Your task to perform on an android device: change keyboard looks Image 0: 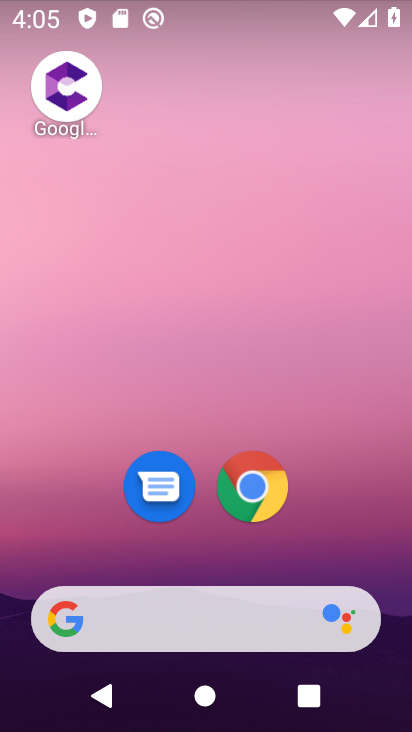
Step 0: drag from (362, 537) to (224, 13)
Your task to perform on an android device: change keyboard looks Image 1: 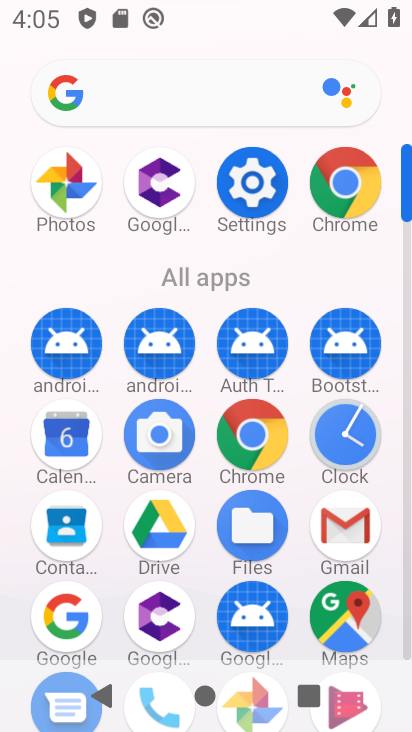
Step 1: drag from (16, 591) to (9, 215)
Your task to perform on an android device: change keyboard looks Image 2: 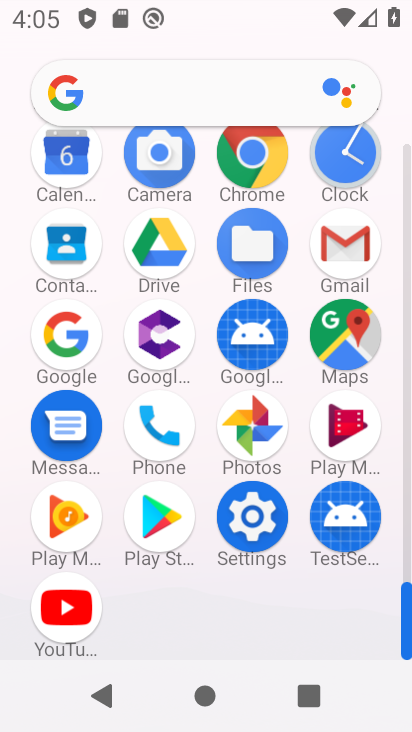
Step 2: click (250, 517)
Your task to perform on an android device: change keyboard looks Image 3: 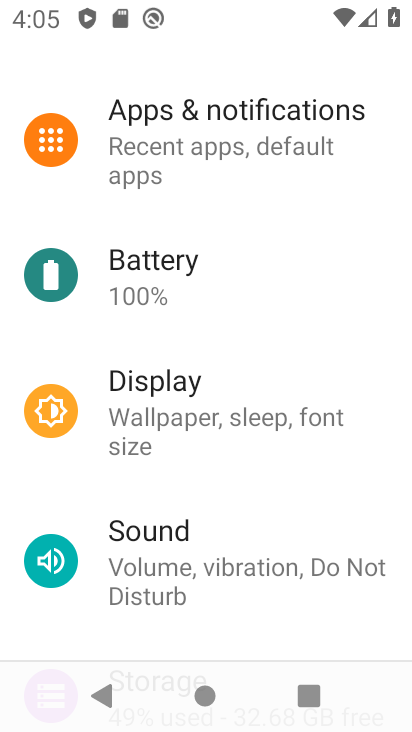
Step 3: drag from (246, 559) to (206, 145)
Your task to perform on an android device: change keyboard looks Image 4: 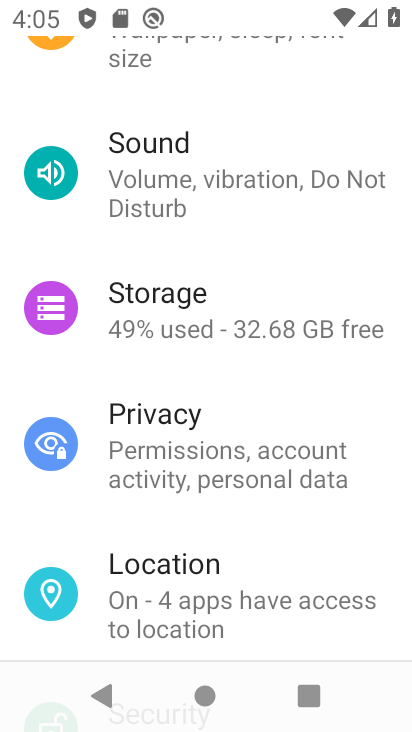
Step 4: drag from (246, 595) to (240, 105)
Your task to perform on an android device: change keyboard looks Image 5: 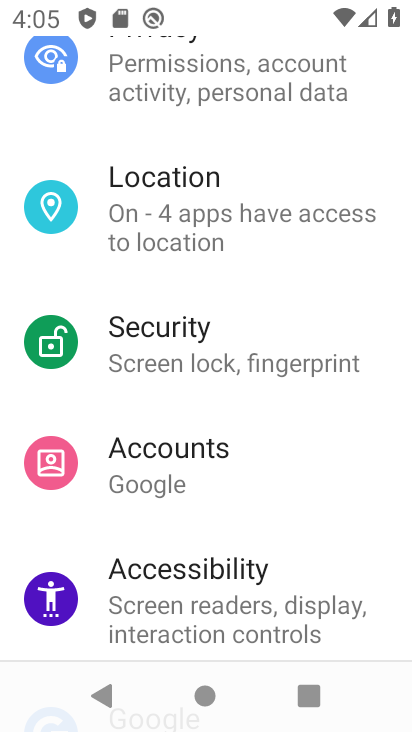
Step 5: drag from (219, 478) to (225, 39)
Your task to perform on an android device: change keyboard looks Image 6: 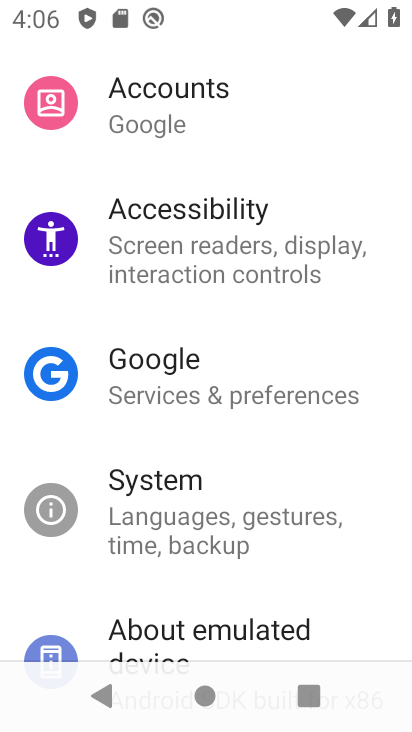
Step 6: drag from (260, 545) to (238, 119)
Your task to perform on an android device: change keyboard looks Image 7: 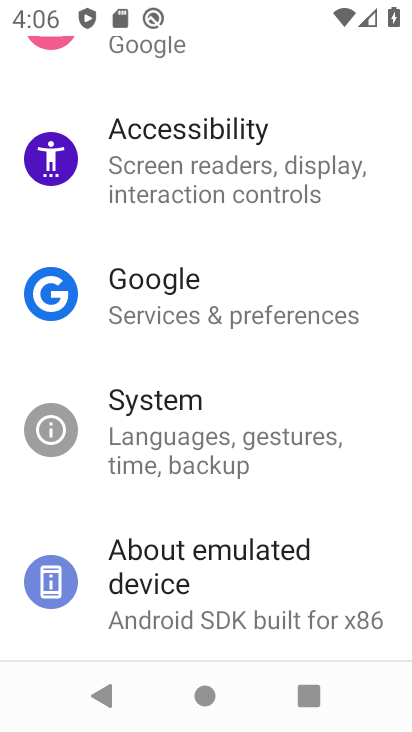
Step 7: click (222, 425)
Your task to perform on an android device: change keyboard looks Image 8: 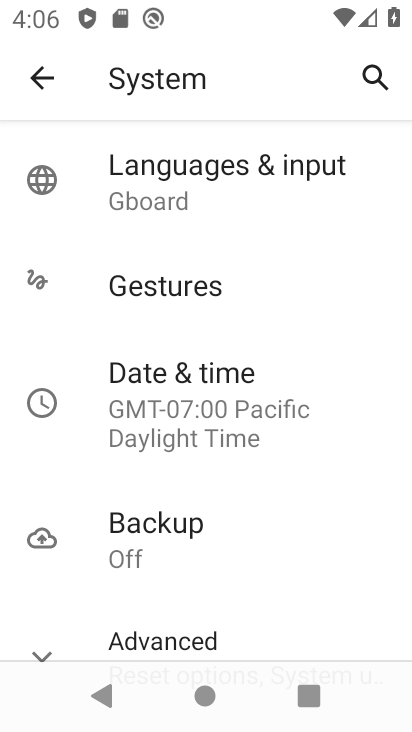
Step 8: click (240, 189)
Your task to perform on an android device: change keyboard looks Image 9: 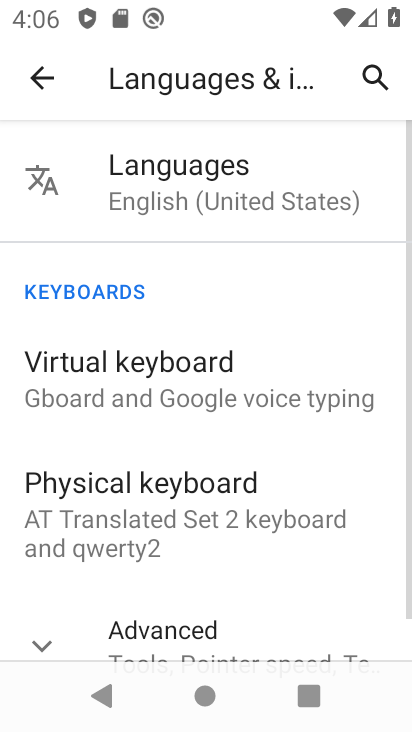
Step 9: click (164, 408)
Your task to perform on an android device: change keyboard looks Image 10: 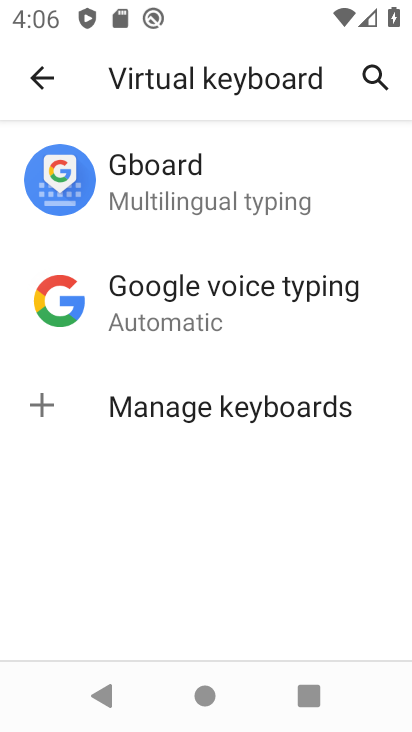
Step 10: click (189, 224)
Your task to perform on an android device: change keyboard looks Image 11: 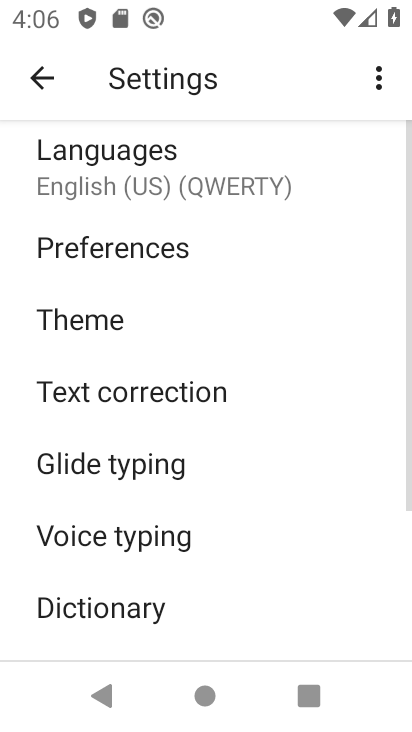
Step 11: click (109, 320)
Your task to perform on an android device: change keyboard looks Image 12: 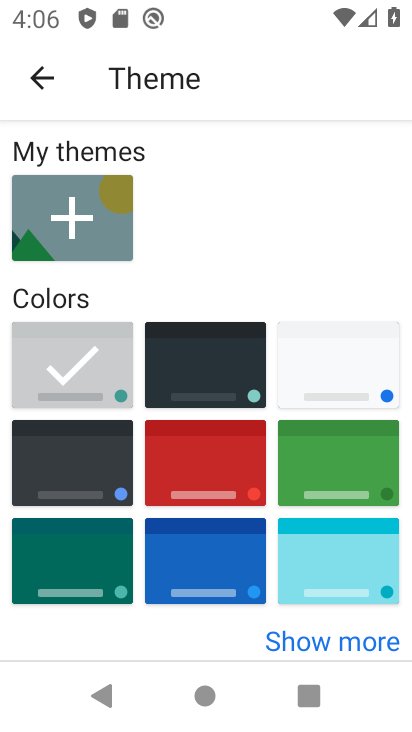
Step 12: click (212, 352)
Your task to perform on an android device: change keyboard looks Image 13: 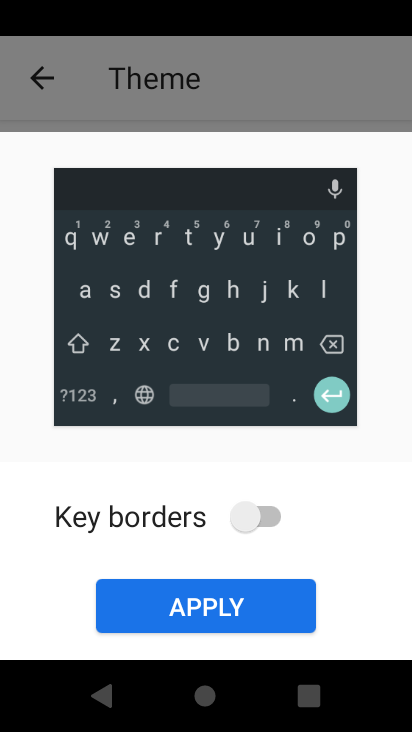
Step 13: click (225, 602)
Your task to perform on an android device: change keyboard looks Image 14: 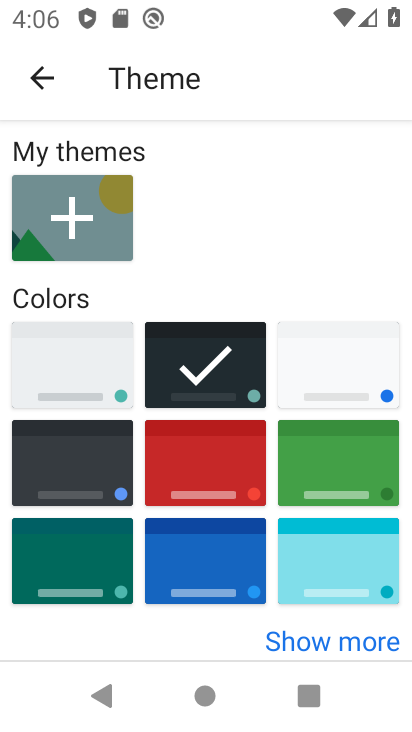
Step 14: task complete